Your task to perform on an android device: Open Google Chrome Image 0: 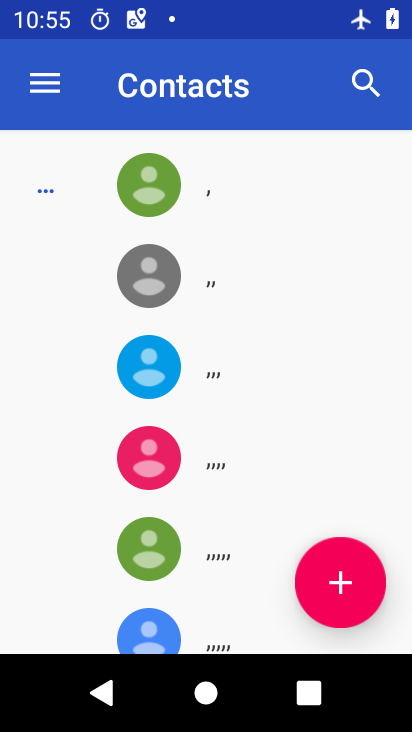
Step 0: press home button
Your task to perform on an android device: Open Google Chrome Image 1: 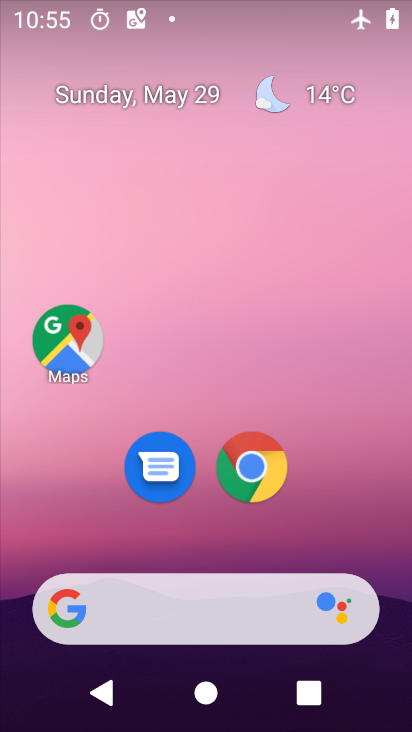
Step 1: click (254, 480)
Your task to perform on an android device: Open Google Chrome Image 2: 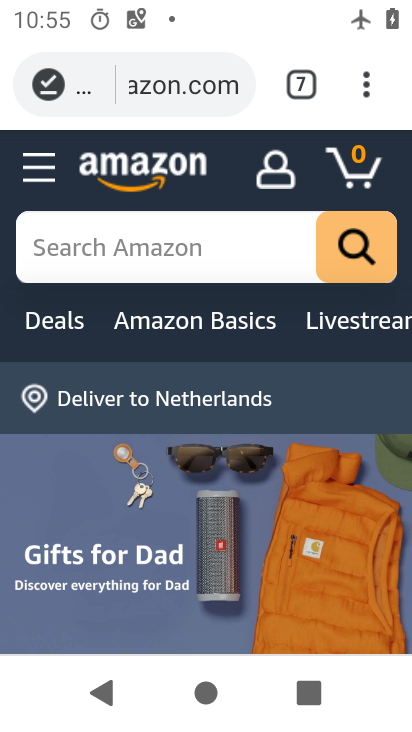
Step 2: task complete